Your task to perform on an android device: toggle airplane mode Image 0: 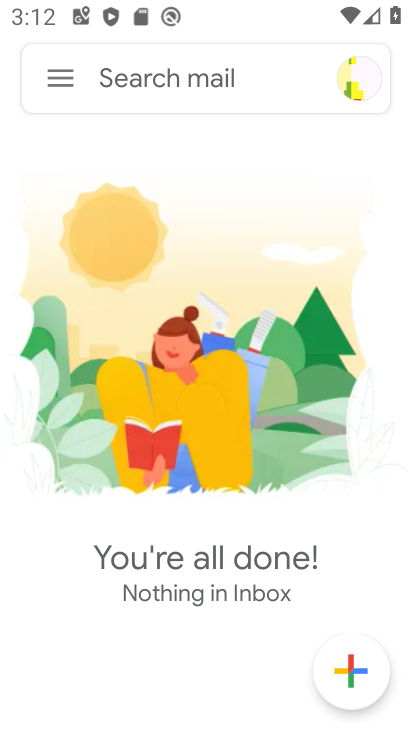
Step 0: press home button
Your task to perform on an android device: toggle airplane mode Image 1: 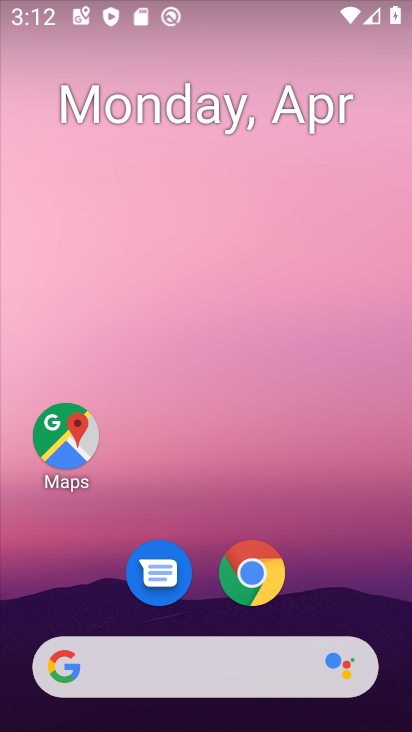
Step 1: drag from (360, 580) to (376, 96)
Your task to perform on an android device: toggle airplane mode Image 2: 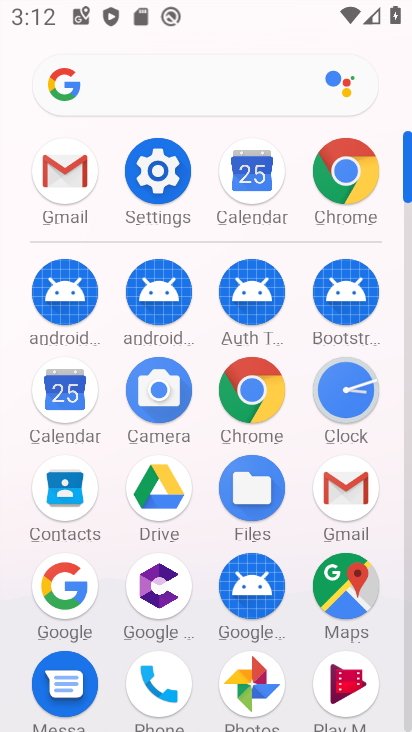
Step 2: click (164, 184)
Your task to perform on an android device: toggle airplane mode Image 3: 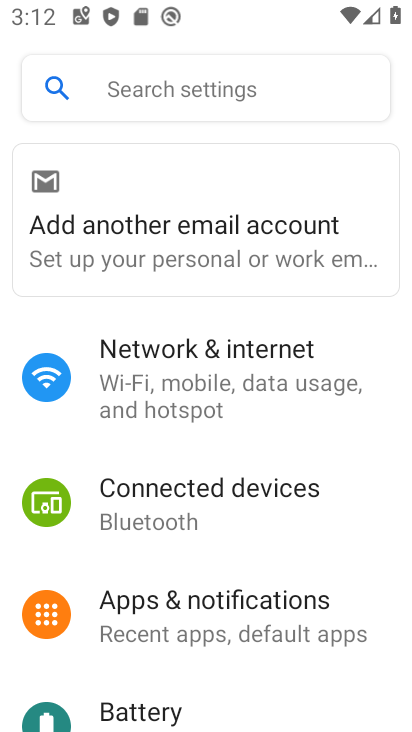
Step 3: drag from (307, 670) to (305, 495)
Your task to perform on an android device: toggle airplane mode Image 4: 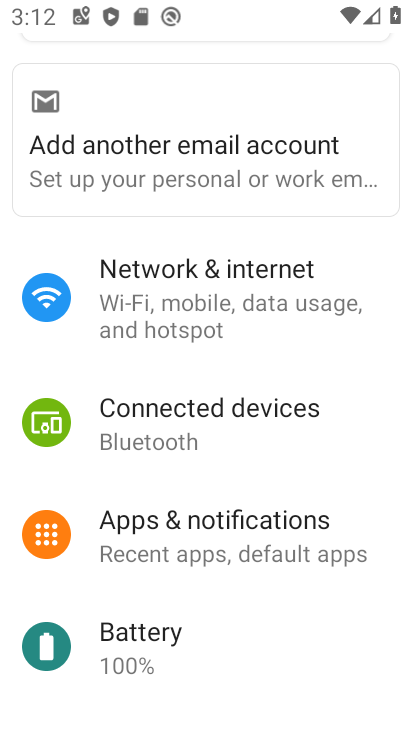
Step 4: drag from (342, 604) to (352, 390)
Your task to perform on an android device: toggle airplane mode Image 5: 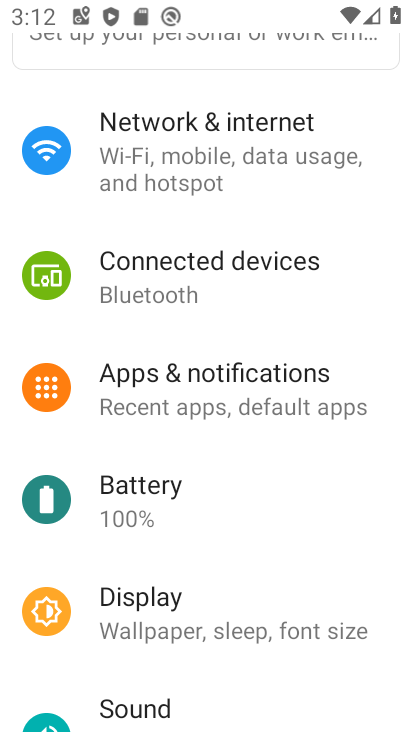
Step 5: drag from (334, 676) to (333, 486)
Your task to perform on an android device: toggle airplane mode Image 6: 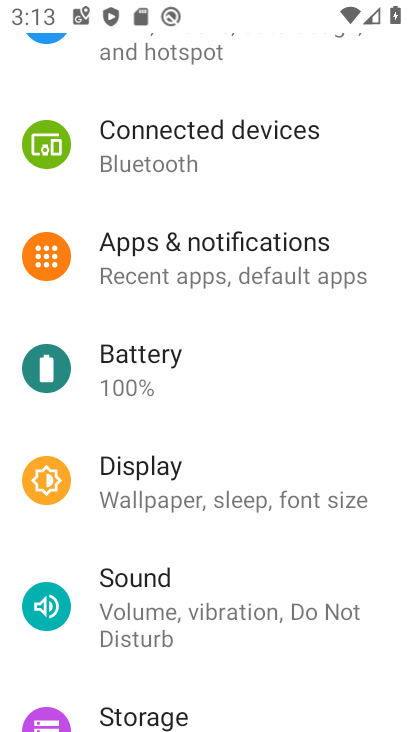
Step 6: drag from (346, 673) to (347, 542)
Your task to perform on an android device: toggle airplane mode Image 7: 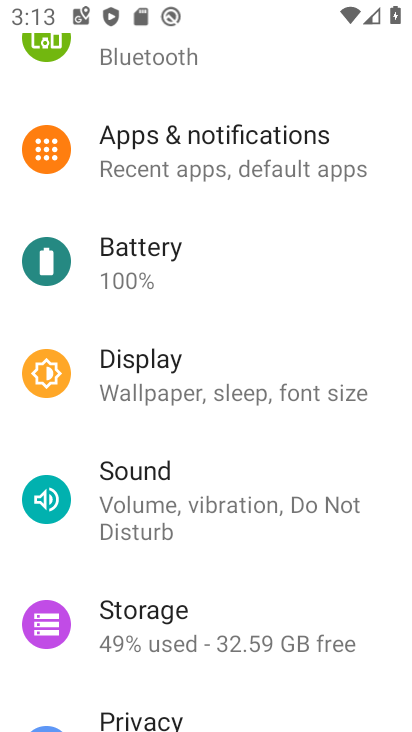
Step 7: drag from (337, 685) to (331, 466)
Your task to perform on an android device: toggle airplane mode Image 8: 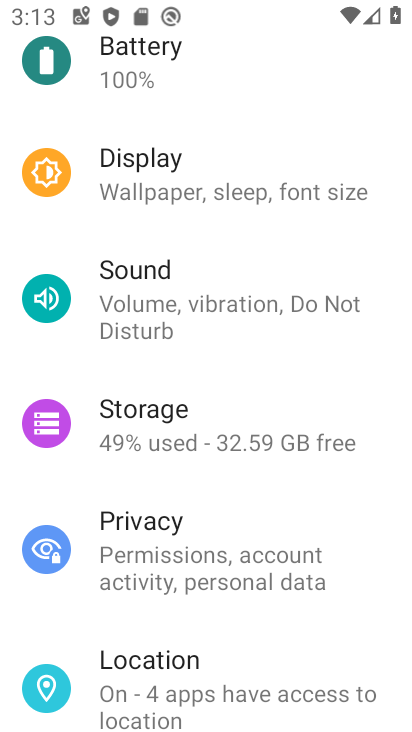
Step 8: drag from (340, 649) to (347, 487)
Your task to perform on an android device: toggle airplane mode Image 9: 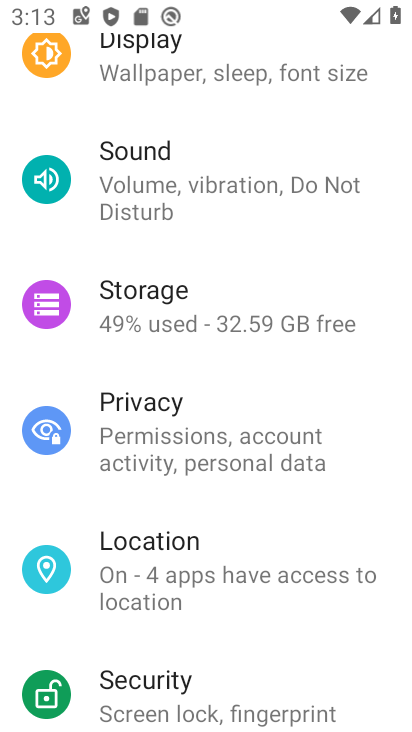
Step 9: drag from (354, 232) to (337, 427)
Your task to perform on an android device: toggle airplane mode Image 10: 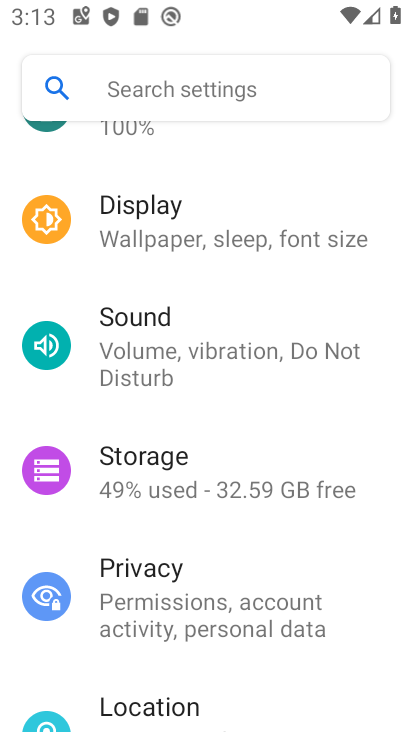
Step 10: drag from (367, 195) to (376, 380)
Your task to perform on an android device: toggle airplane mode Image 11: 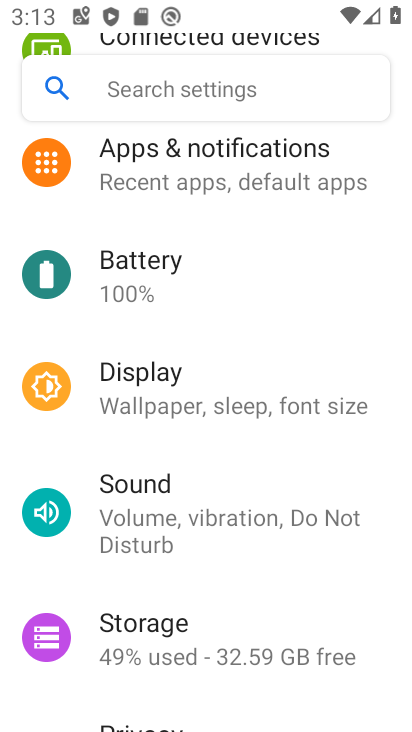
Step 11: drag from (380, 189) to (382, 379)
Your task to perform on an android device: toggle airplane mode Image 12: 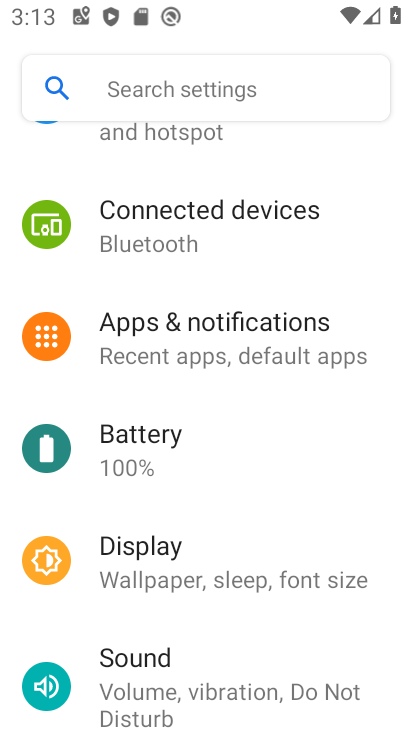
Step 12: drag from (379, 195) to (373, 375)
Your task to perform on an android device: toggle airplane mode Image 13: 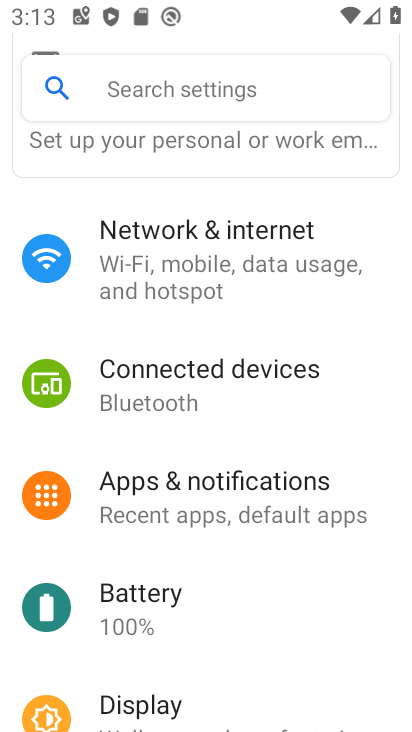
Step 13: drag from (368, 188) to (359, 398)
Your task to perform on an android device: toggle airplane mode Image 14: 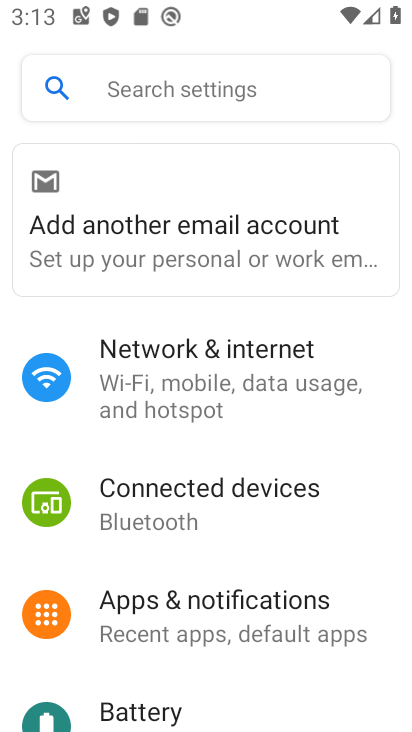
Step 14: click (291, 383)
Your task to perform on an android device: toggle airplane mode Image 15: 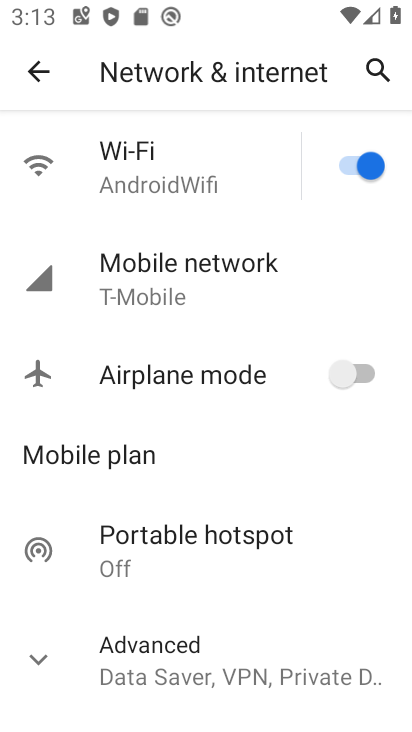
Step 15: click (341, 380)
Your task to perform on an android device: toggle airplane mode Image 16: 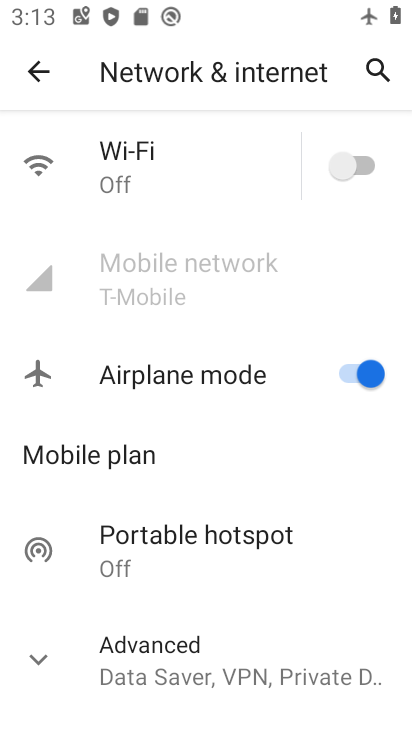
Step 16: task complete